Your task to perform on an android device: Open Google Image 0: 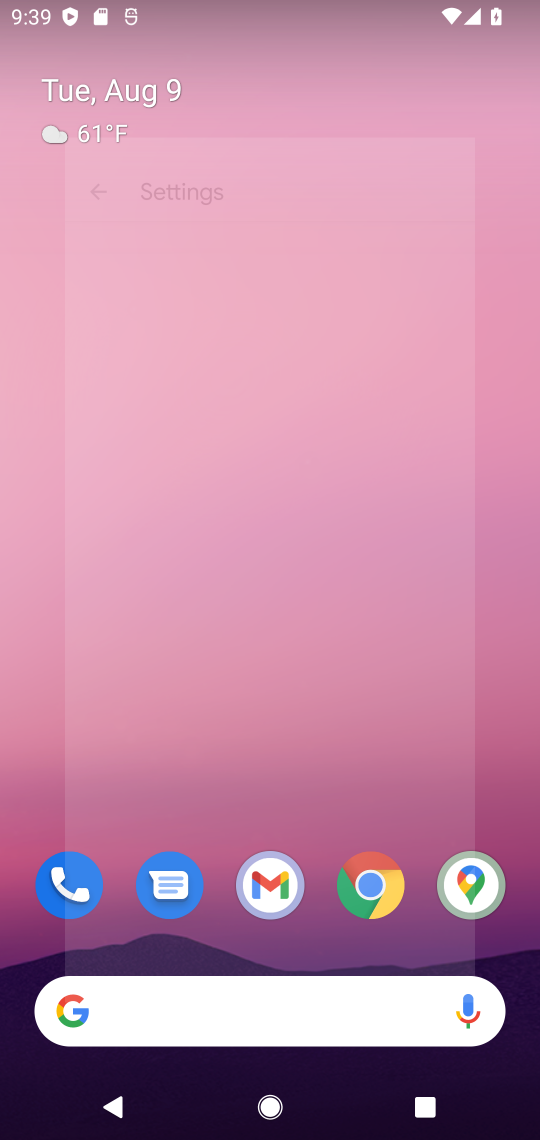
Step 0: press home button
Your task to perform on an android device: Open Google Image 1: 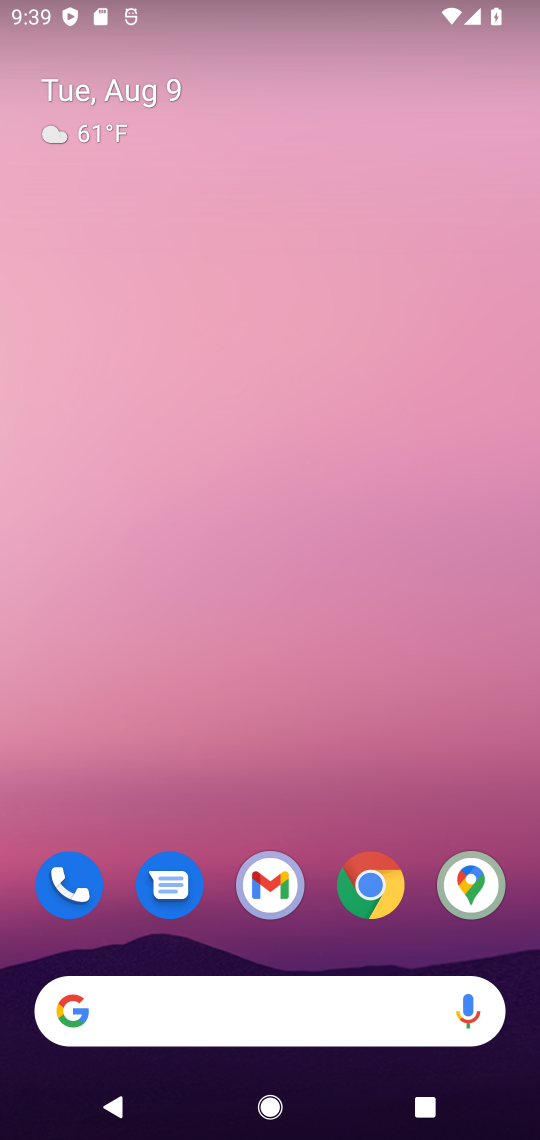
Step 1: press home button
Your task to perform on an android device: Open Google Image 2: 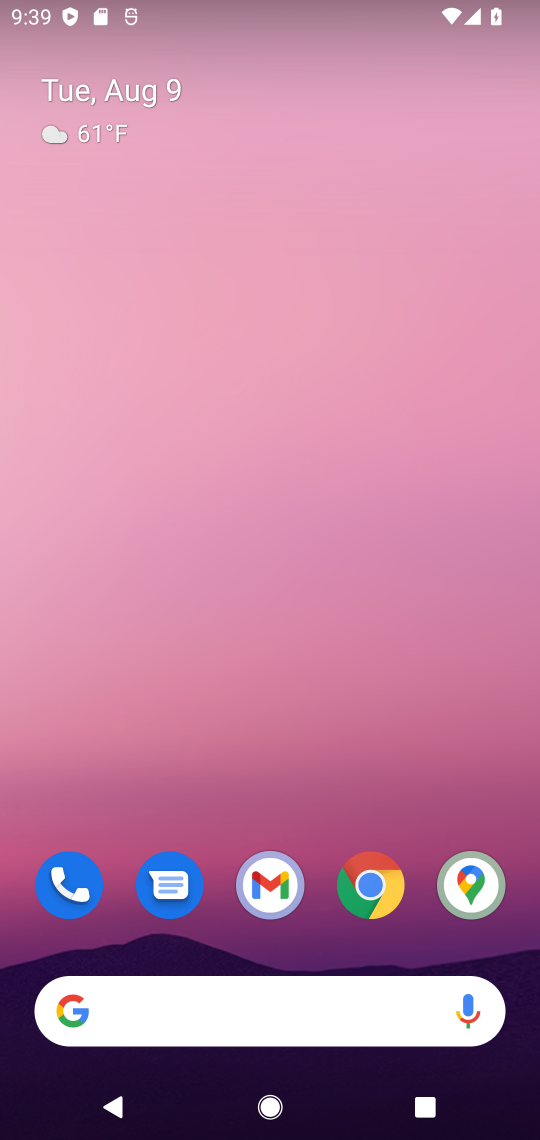
Step 2: drag from (313, 852) to (373, 16)
Your task to perform on an android device: Open Google Image 3: 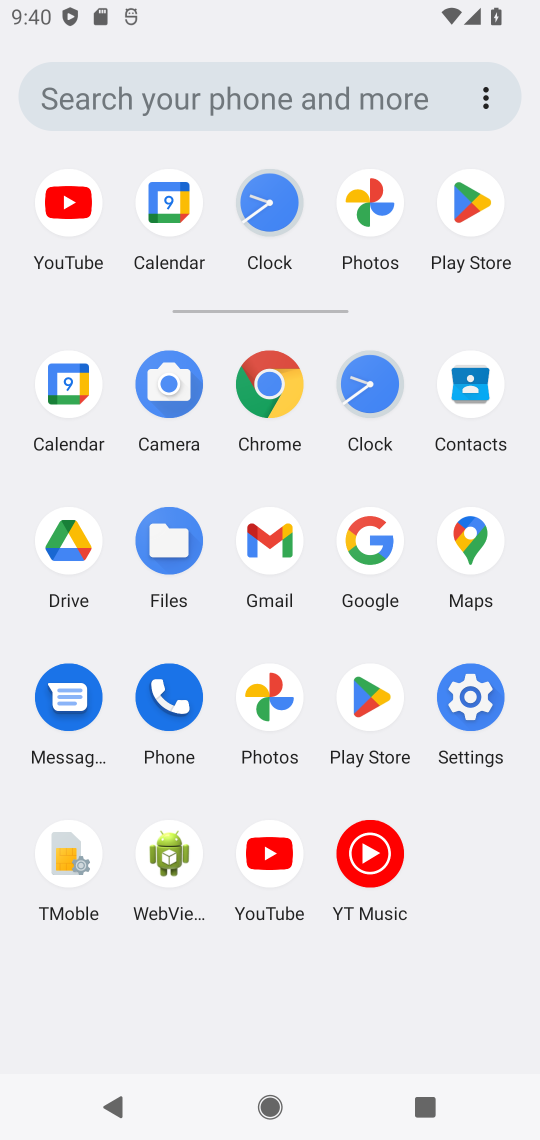
Step 3: click (366, 529)
Your task to perform on an android device: Open Google Image 4: 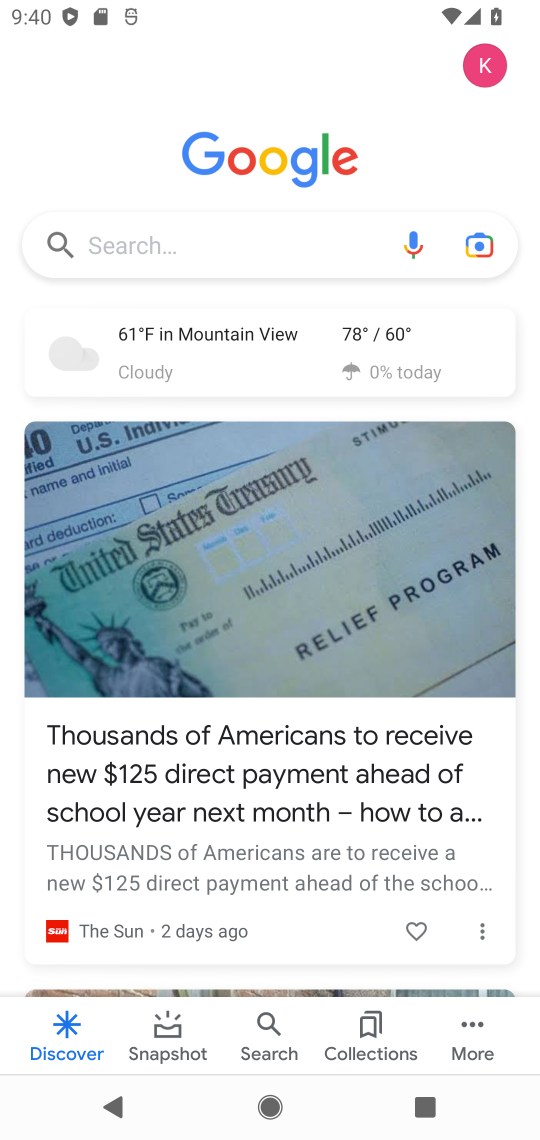
Step 4: task complete